Your task to perform on an android device: turn pop-ups off in chrome Image 0: 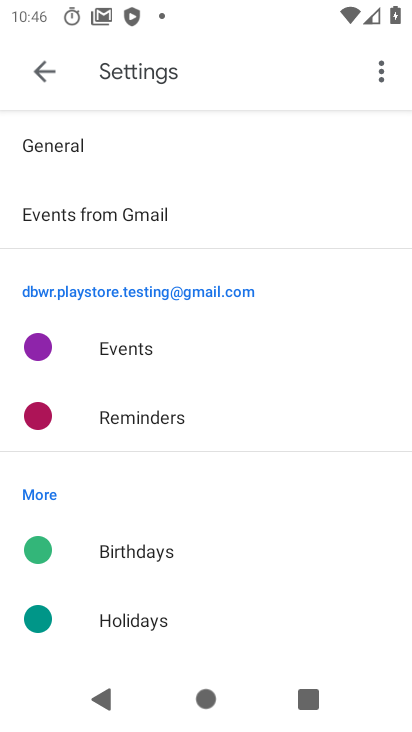
Step 0: press home button
Your task to perform on an android device: turn pop-ups off in chrome Image 1: 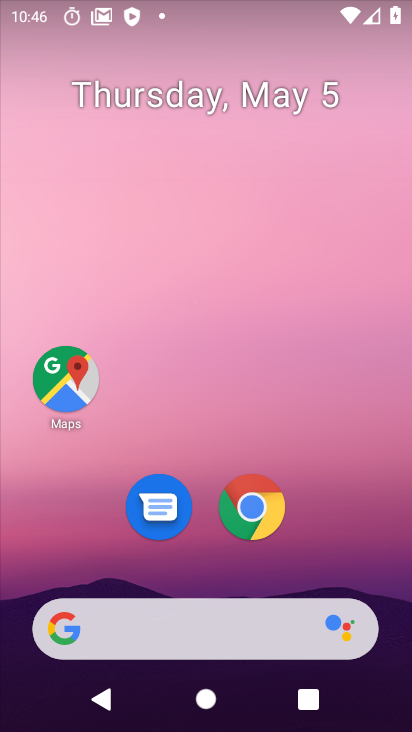
Step 1: click (254, 508)
Your task to perform on an android device: turn pop-ups off in chrome Image 2: 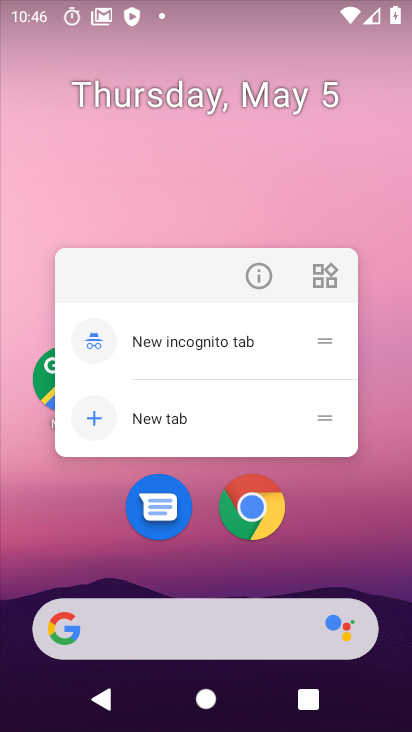
Step 2: click (254, 508)
Your task to perform on an android device: turn pop-ups off in chrome Image 3: 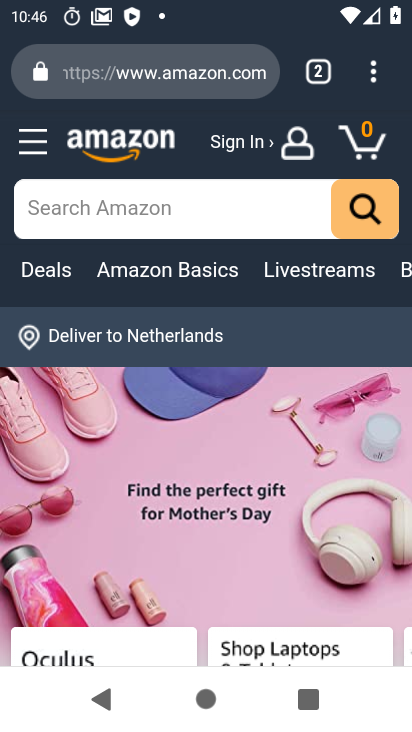
Step 3: drag from (376, 74) to (132, 499)
Your task to perform on an android device: turn pop-ups off in chrome Image 4: 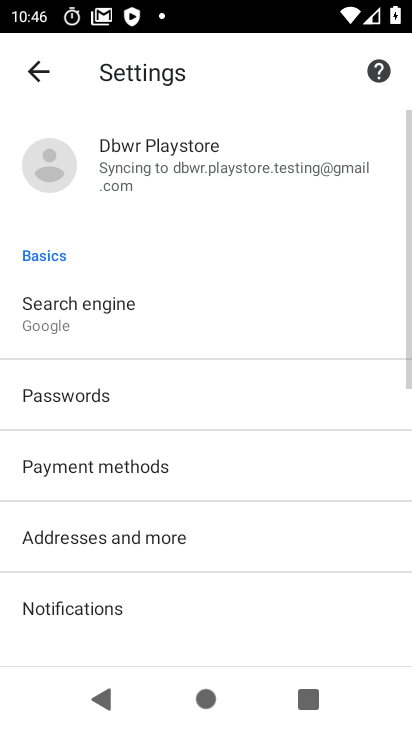
Step 4: drag from (227, 570) to (225, 213)
Your task to perform on an android device: turn pop-ups off in chrome Image 5: 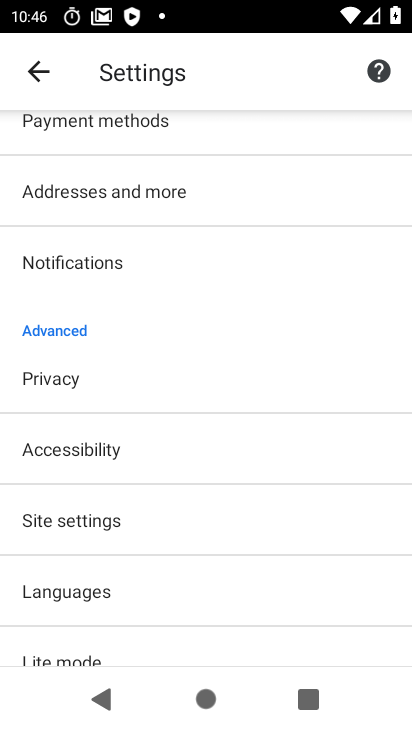
Step 5: click (70, 520)
Your task to perform on an android device: turn pop-ups off in chrome Image 6: 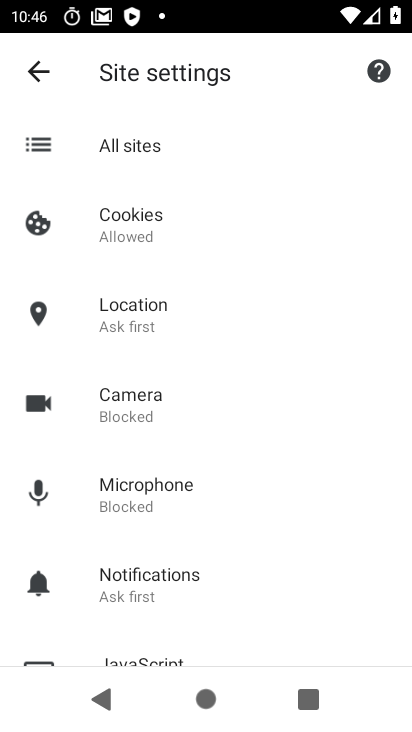
Step 6: drag from (244, 594) to (227, 296)
Your task to perform on an android device: turn pop-ups off in chrome Image 7: 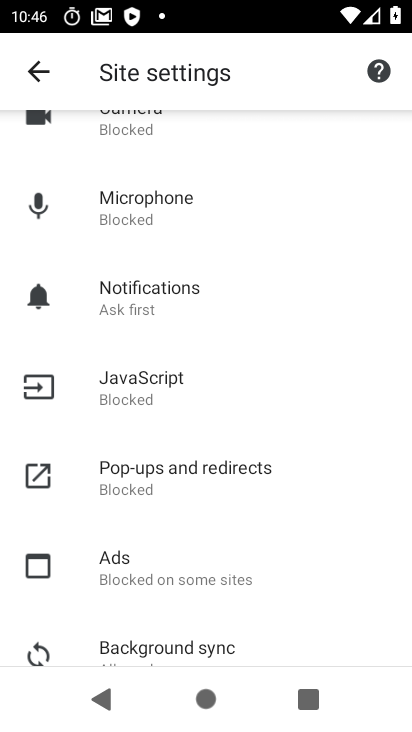
Step 7: click (133, 473)
Your task to perform on an android device: turn pop-ups off in chrome Image 8: 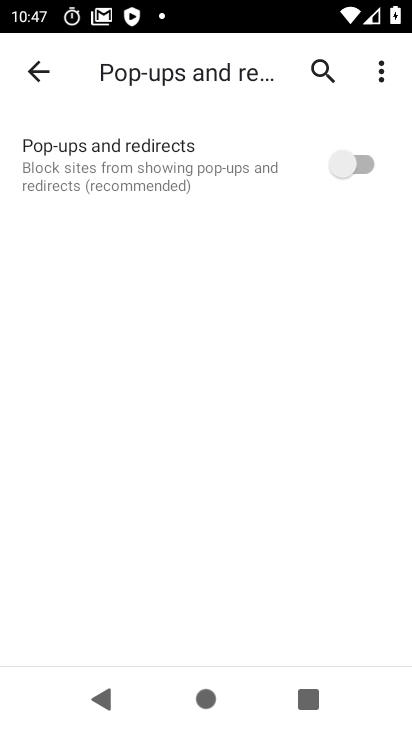
Step 8: task complete